Your task to perform on an android device: Add logitech g pro to the cart on bestbuy.com Image 0: 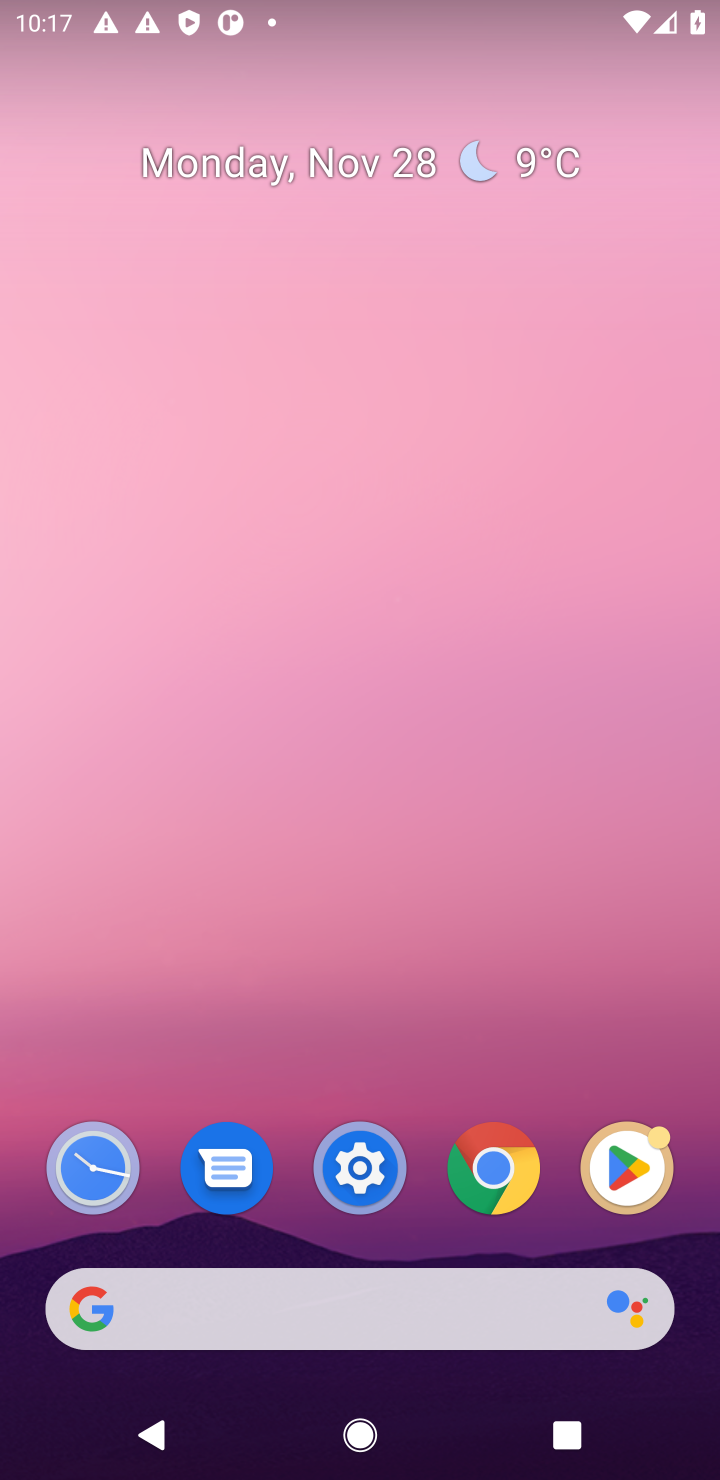
Step 0: click (477, 1298)
Your task to perform on an android device: Add logitech g pro to the cart on bestbuy.com Image 1: 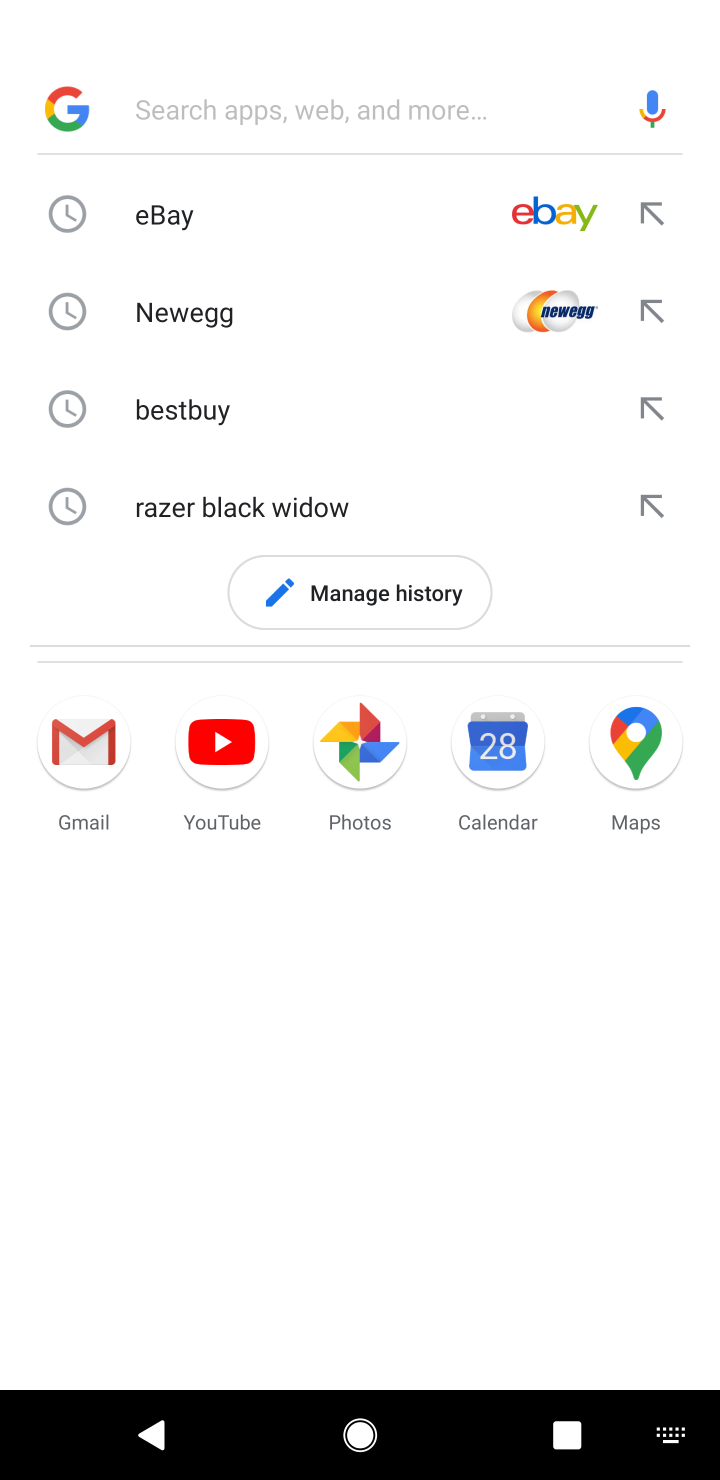
Step 1: type "bestbuy.com"
Your task to perform on an android device: Add logitech g pro to the cart on bestbuy.com Image 2: 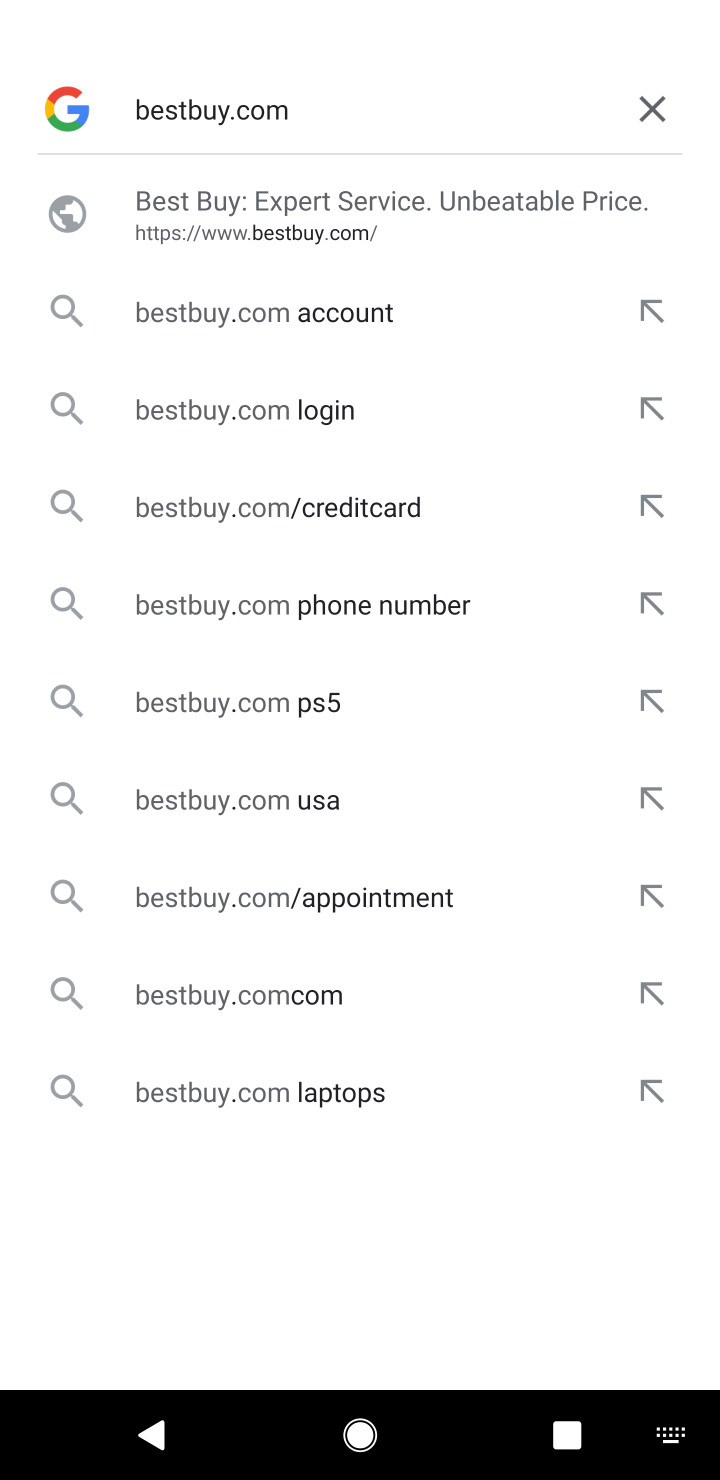
Step 2: click (221, 220)
Your task to perform on an android device: Add logitech g pro to the cart on bestbuy.com Image 3: 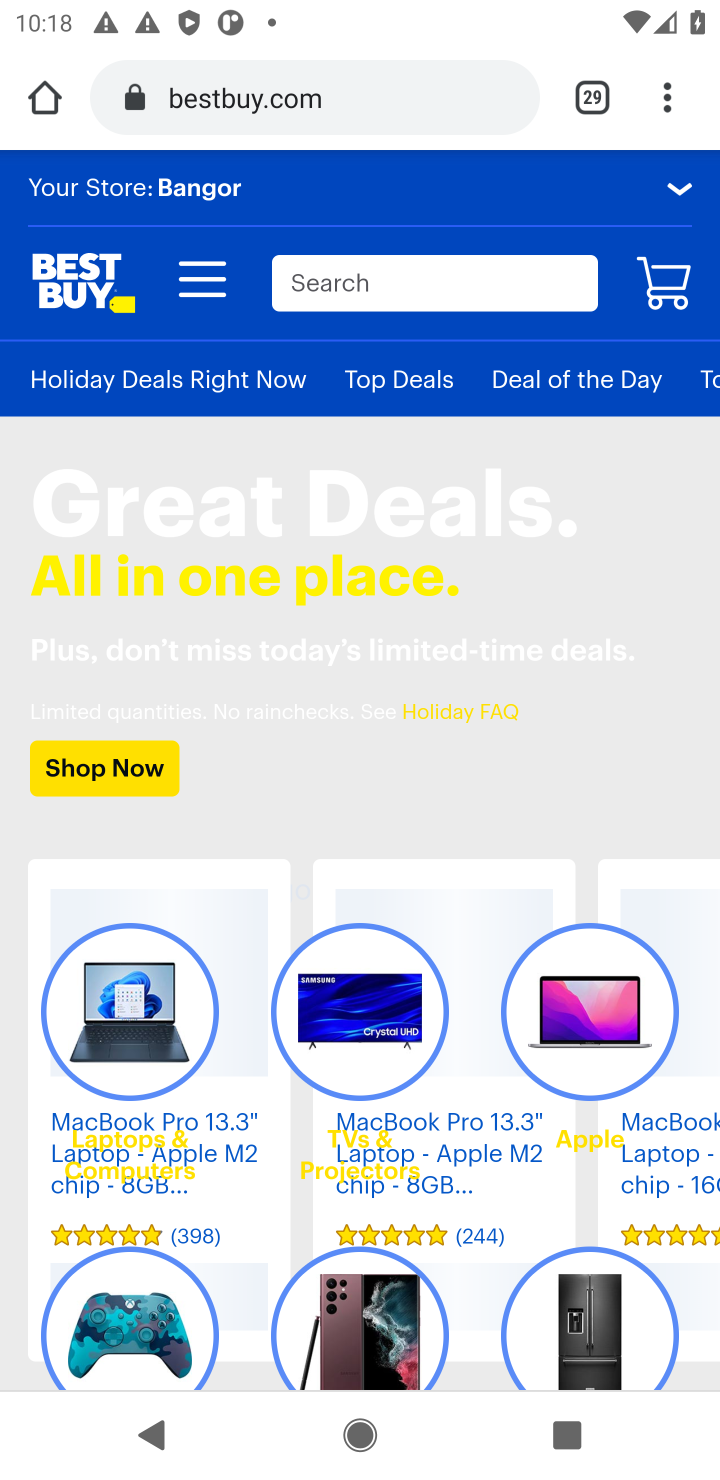
Step 3: click (372, 295)
Your task to perform on an android device: Add logitech g pro to the cart on bestbuy.com Image 4: 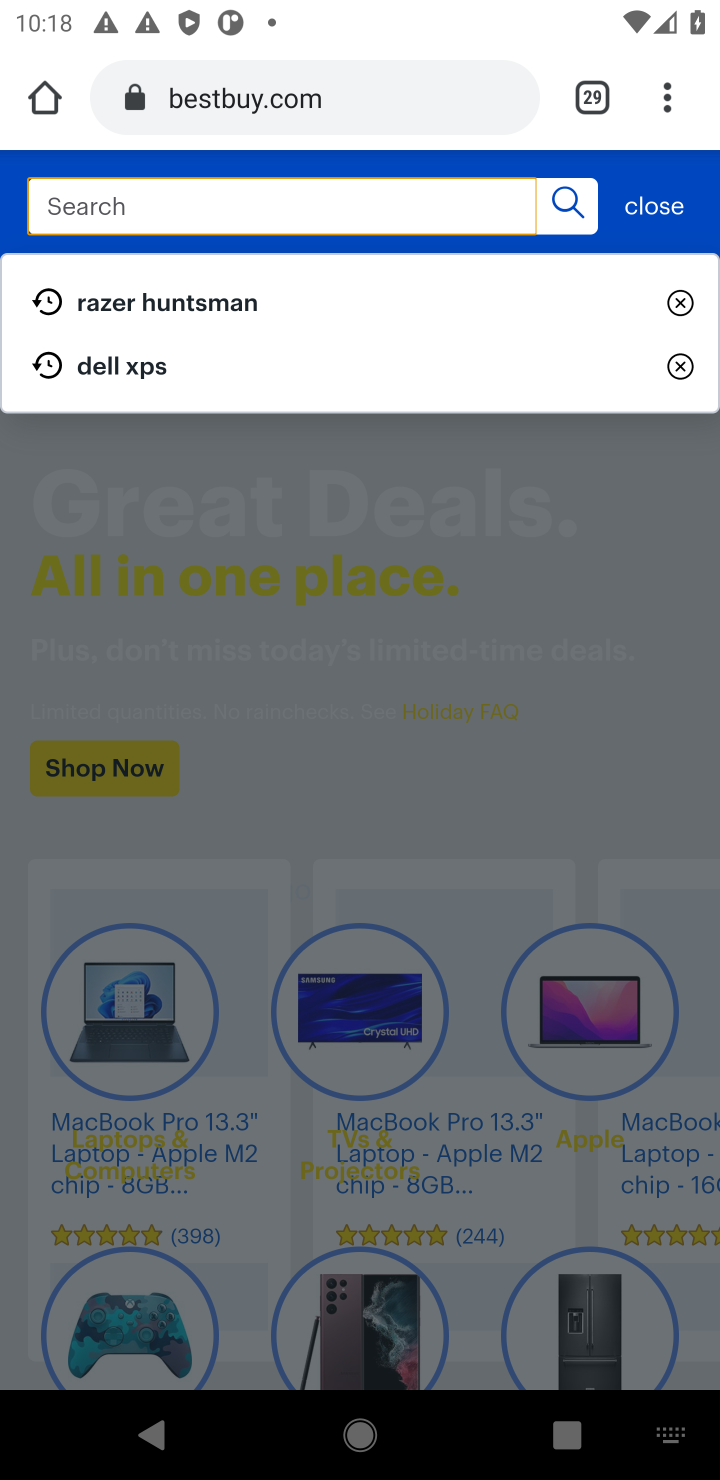
Step 4: type "logityec\"
Your task to perform on an android device: Add logitech g pro to the cart on bestbuy.com Image 5: 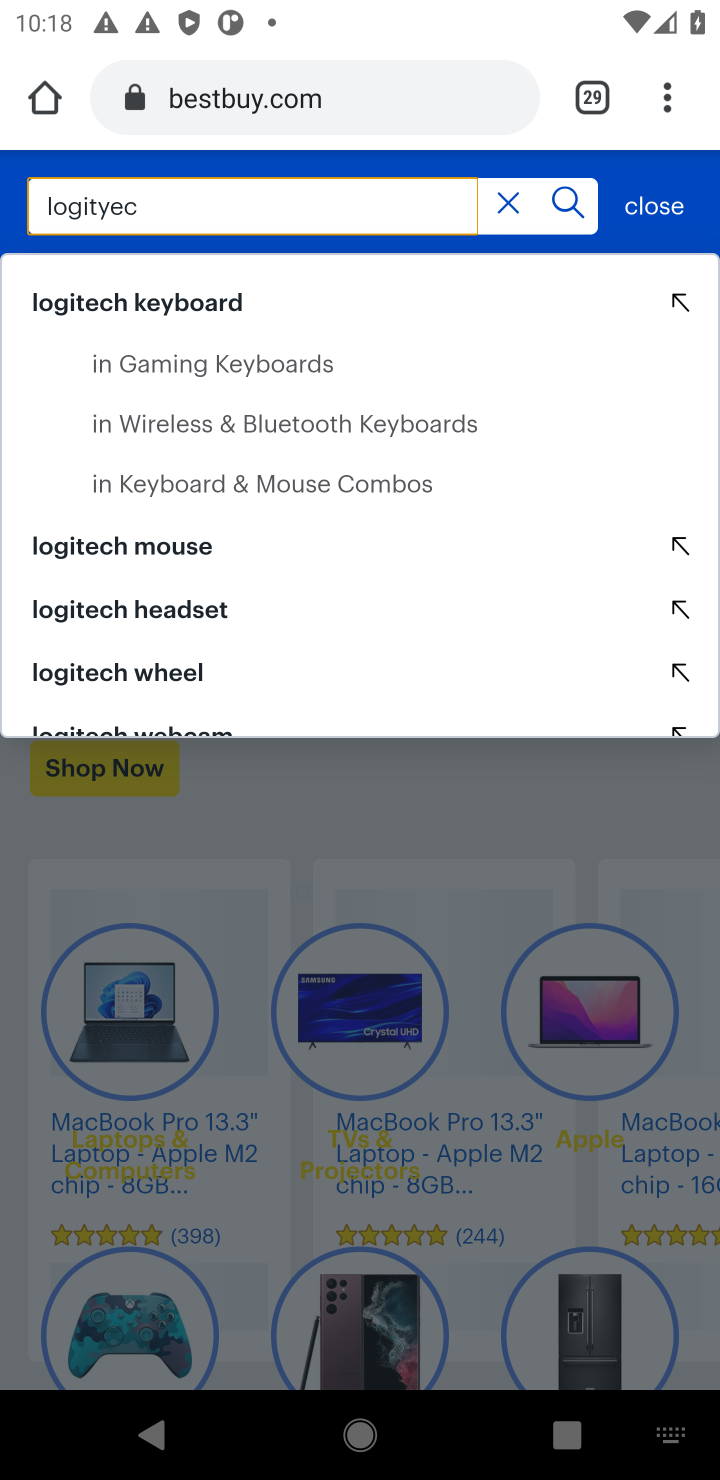
Step 5: task complete